Your task to perform on an android device: change your default location settings in chrome Image 0: 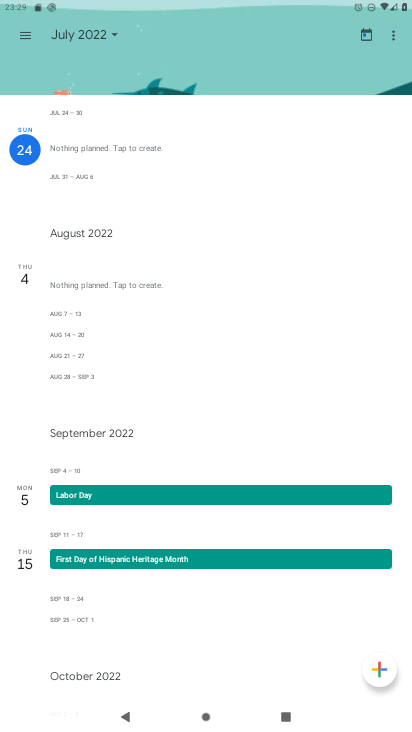
Step 0: drag from (232, 219) to (235, 100)
Your task to perform on an android device: change your default location settings in chrome Image 1: 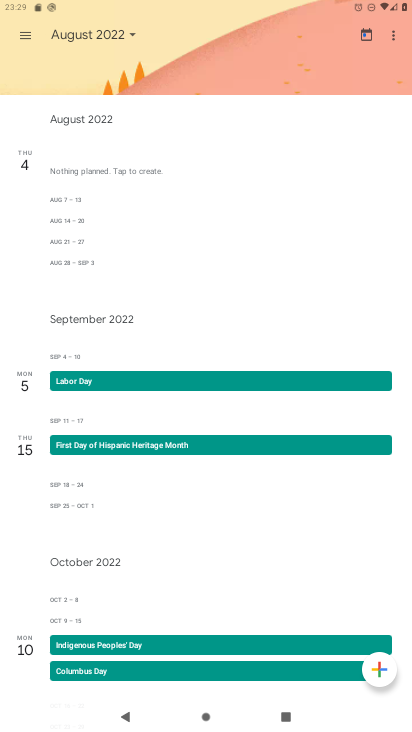
Step 1: drag from (238, 183) to (295, 644)
Your task to perform on an android device: change your default location settings in chrome Image 2: 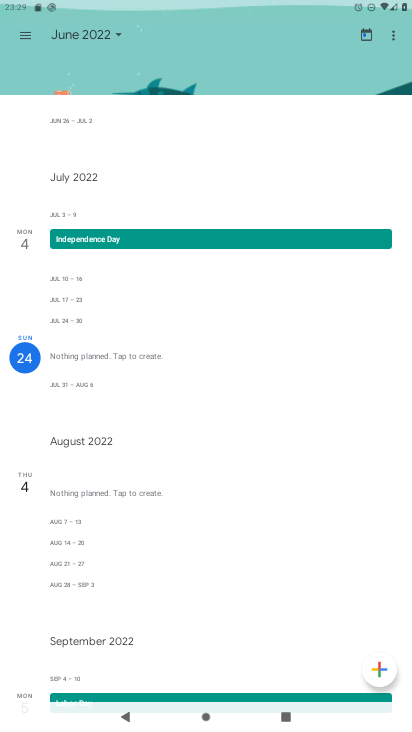
Step 2: press home button
Your task to perform on an android device: change your default location settings in chrome Image 3: 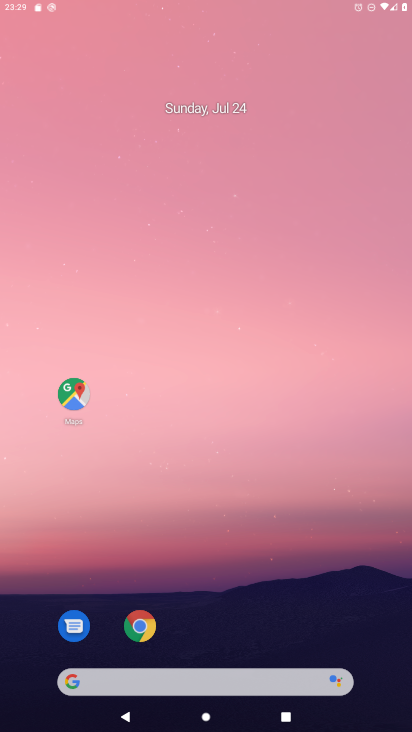
Step 3: drag from (206, 552) to (213, 123)
Your task to perform on an android device: change your default location settings in chrome Image 4: 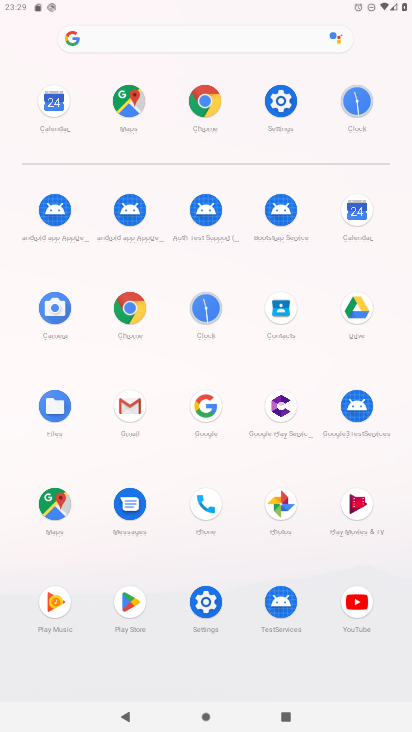
Step 4: drag from (195, 631) to (261, 108)
Your task to perform on an android device: change your default location settings in chrome Image 5: 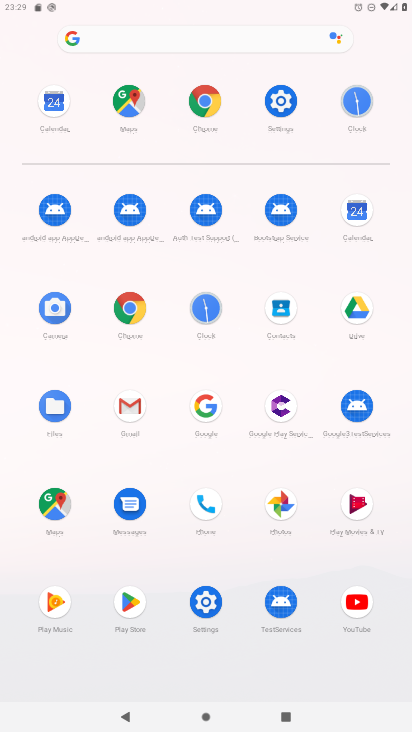
Step 5: click (206, 95)
Your task to perform on an android device: change your default location settings in chrome Image 6: 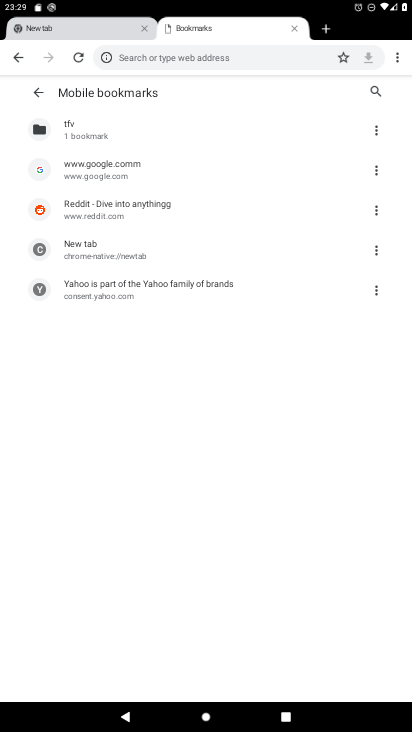
Step 6: click (155, 59)
Your task to perform on an android device: change your default location settings in chrome Image 7: 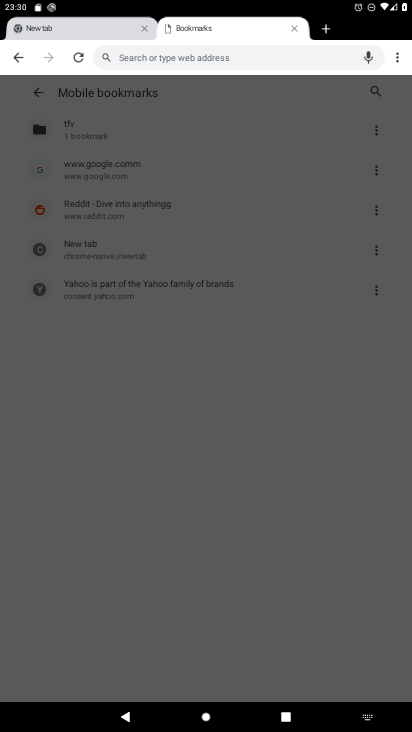
Step 7: click (132, 63)
Your task to perform on an android device: change your default location settings in chrome Image 8: 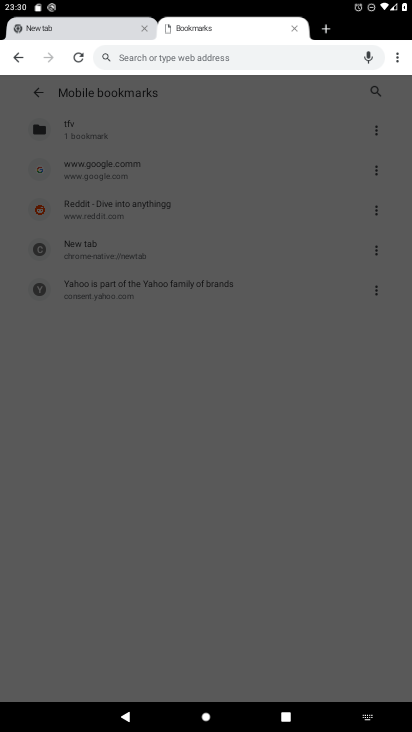
Step 8: click (285, 457)
Your task to perform on an android device: change your default location settings in chrome Image 9: 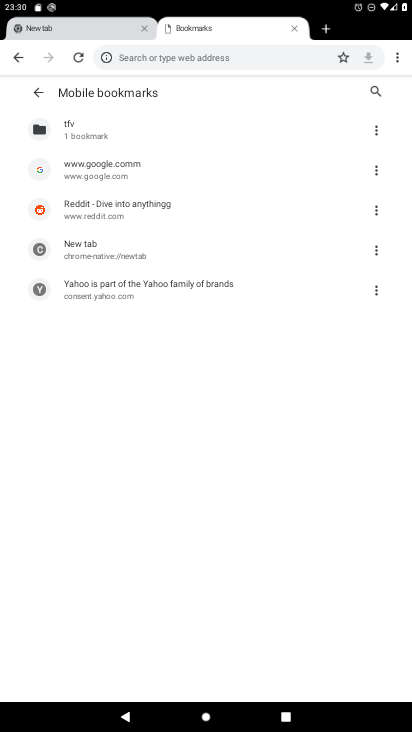
Step 9: drag from (394, 64) to (314, 256)
Your task to perform on an android device: change your default location settings in chrome Image 10: 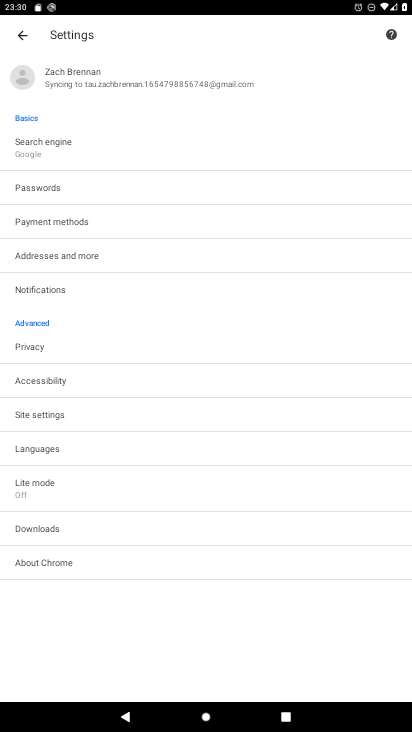
Step 10: drag from (202, 573) to (195, 303)
Your task to perform on an android device: change your default location settings in chrome Image 11: 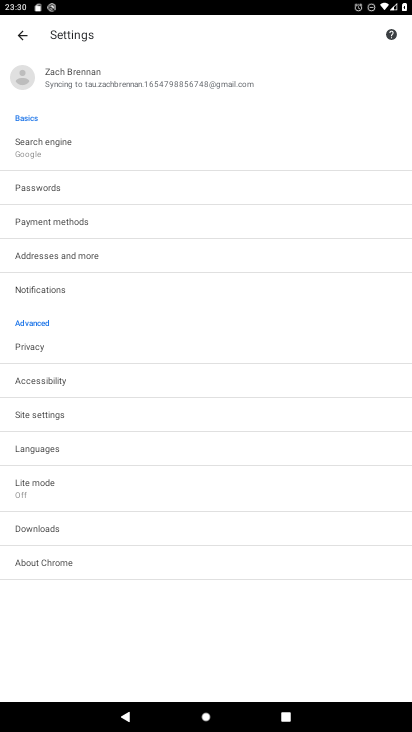
Step 11: drag from (129, 512) to (124, 355)
Your task to perform on an android device: change your default location settings in chrome Image 12: 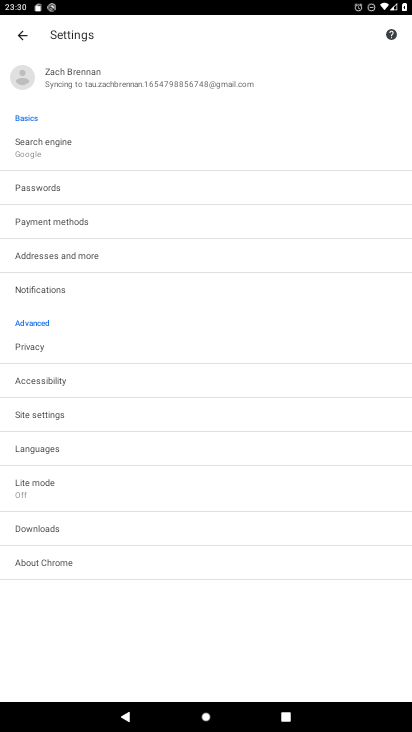
Step 12: click (72, 414)
Your task to perform on an android device: change your default location settings in chrome Image 13: 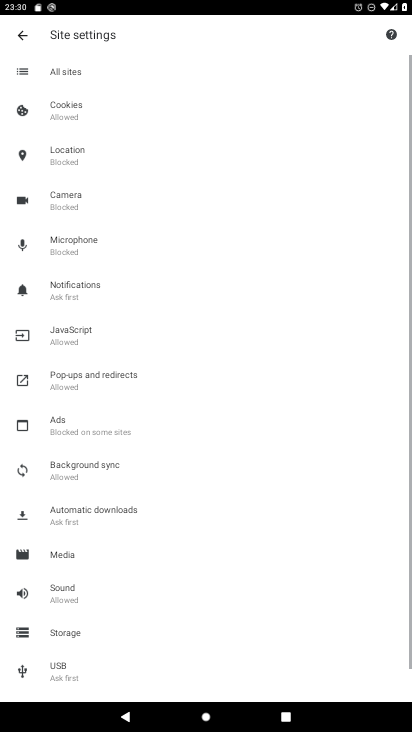
Step 13: click (126, 152)
Your task to perform on an android device: change your default location settings in chrome Image 14: 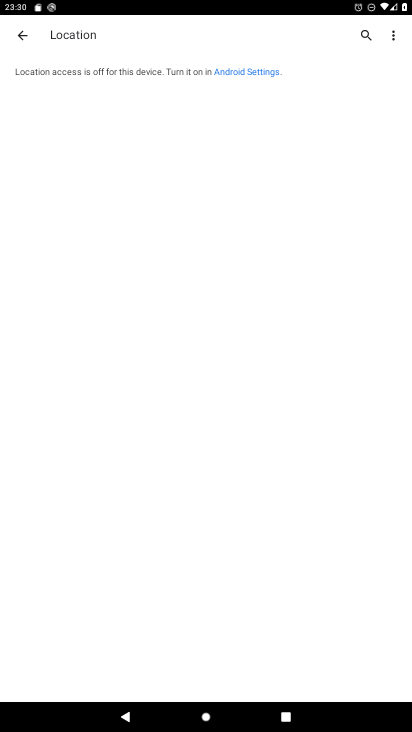
Step 14: task complete